Your task to perform on an android device: Open calendar and show me the fourth week of next month Image 0: 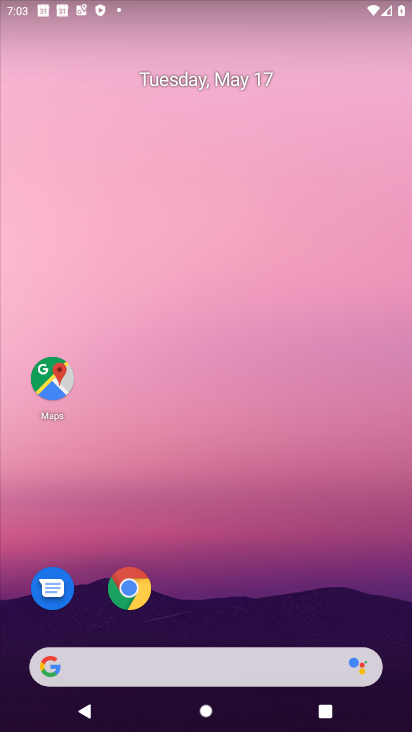
Step 0: drag from (240, 603) to (205, 150)
Your task to perform on an android device: Open calendar and show me the fourth week of next month Image 1: 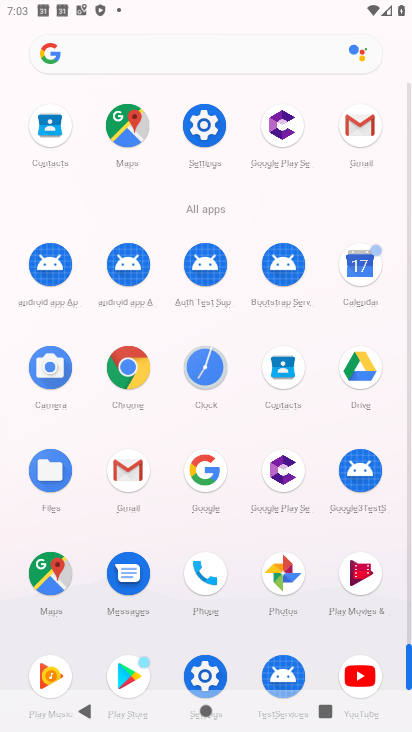
Step 1: click (363, 267)
Your task to perform on an android device: Open calendar and show me the fourth week of next month Image 2: 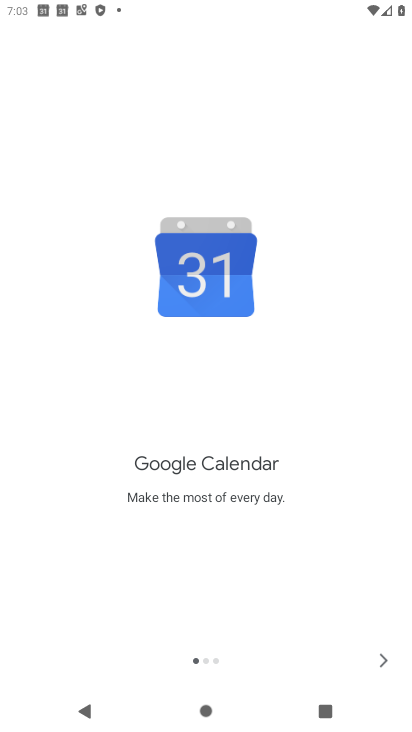
Step 2: click (381, 662)
Your task to perform on an android device: Open calendar and show me the fourth week of next month Image 3: 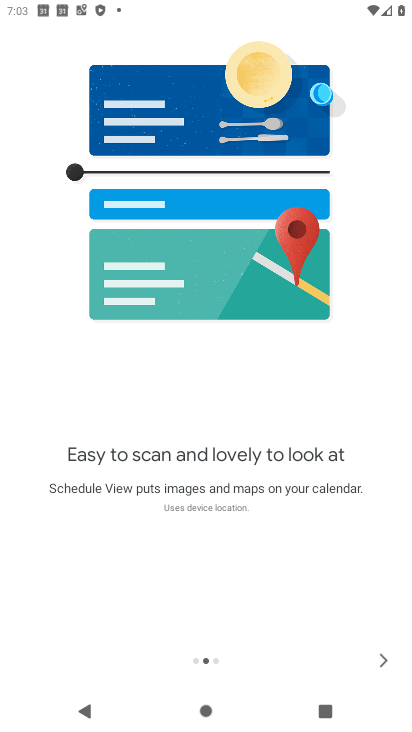
Step 3: click (381, 662)
Your task to perform on an android device: Open calendar and show me the fourth week of next month Image 4: 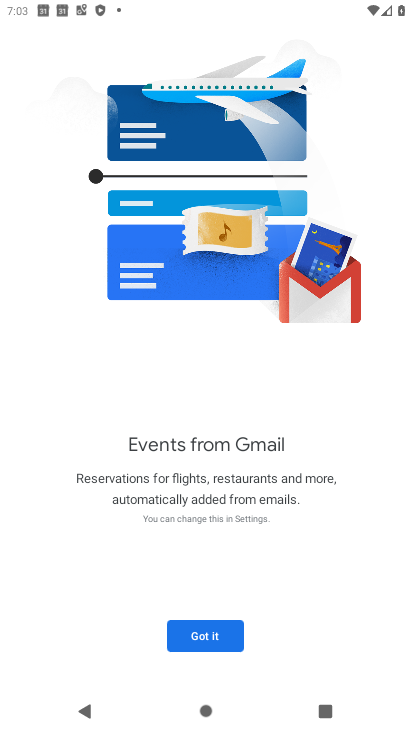
Step 4: click (199, 633)
Your task to perform on an android device: Open calendar and show me the fourth week of next month Image 5: 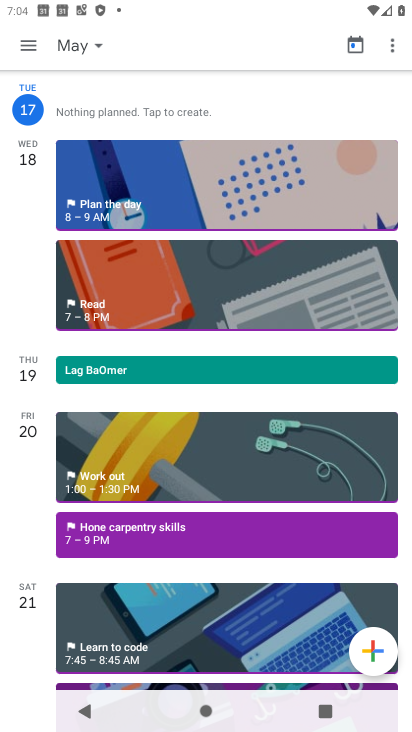
Step 5: click (91, 45)
Your task to perform on an android device: Open calendar and show me the fourth week of next month Image 6: 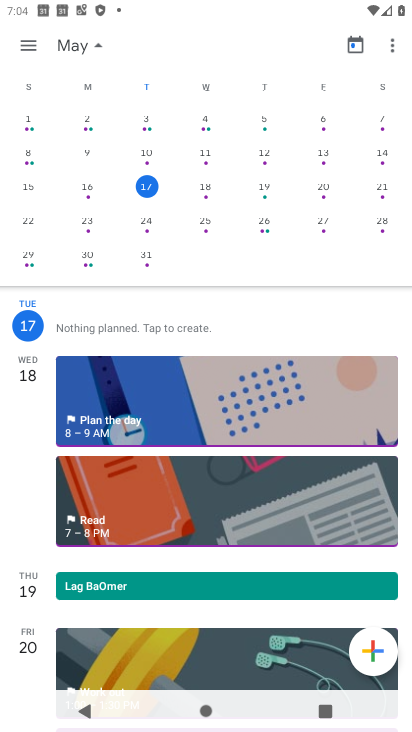
Step 6: drag from (360, 194) to (0, 217)
Your task to perform on an android device: Open calendar and show me the fourth week of next month Image 7: 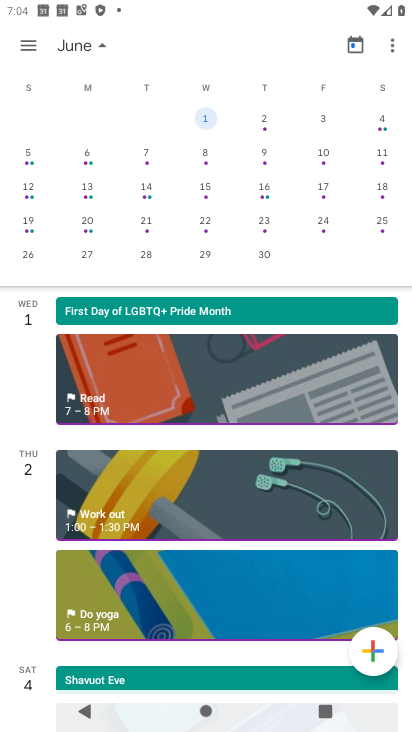
Step 7: click (90, 252)
Your task to perform on an android device: Open calendar and show me the fourth week of next month Image 8: 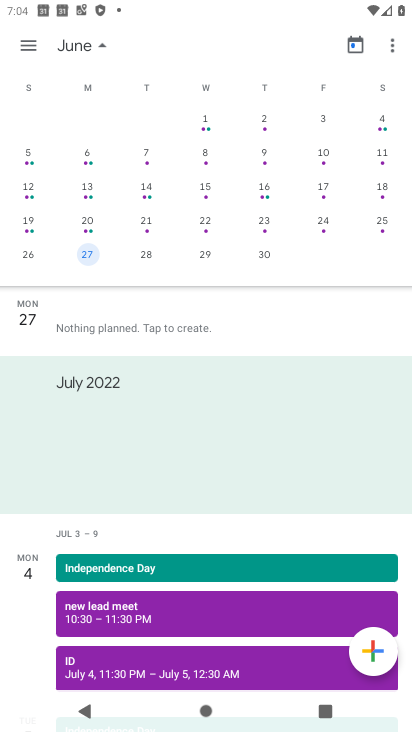
Step 8: click (27, 44)
Your task to perform on an android device: Open calendar and show me the fourth week of next month Image 9: 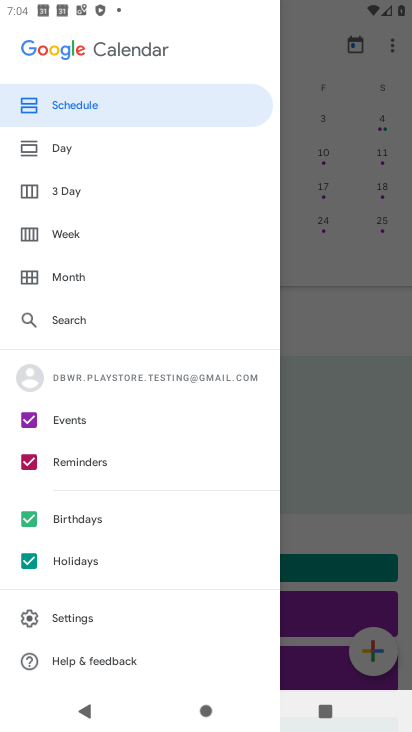
Step 9: click (78, 237)
Your task to perform on an android device: Open calendar and show me the fourth week of next month Image 10: 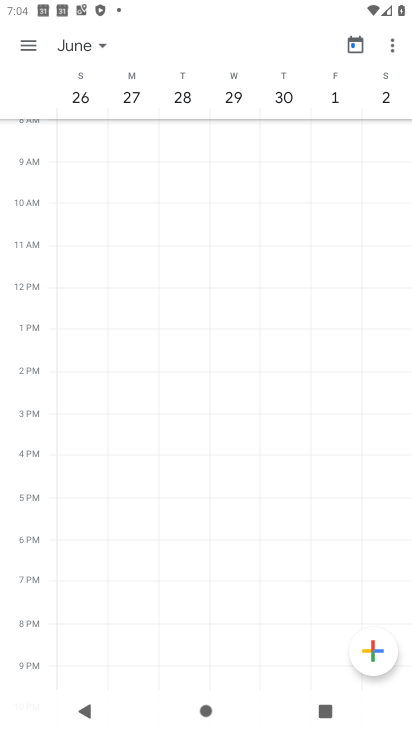
Step 10: task complete